Your task to perform on an android device: Open sound settings Image 0: 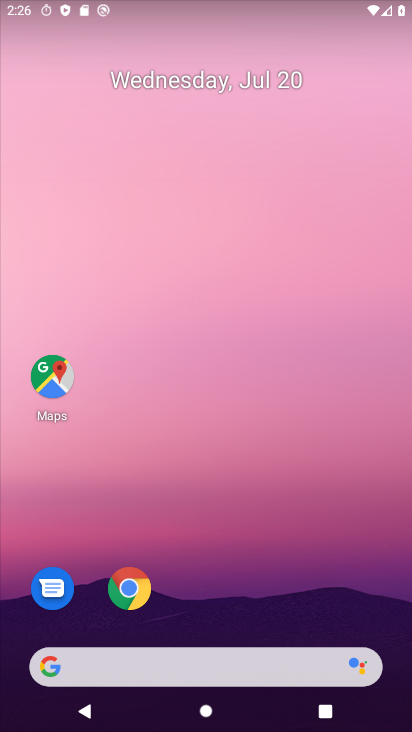
Step 0: drag from (171, 588) to (165, 3)
Your task to perform on an android device: Open sound settings Image 1: 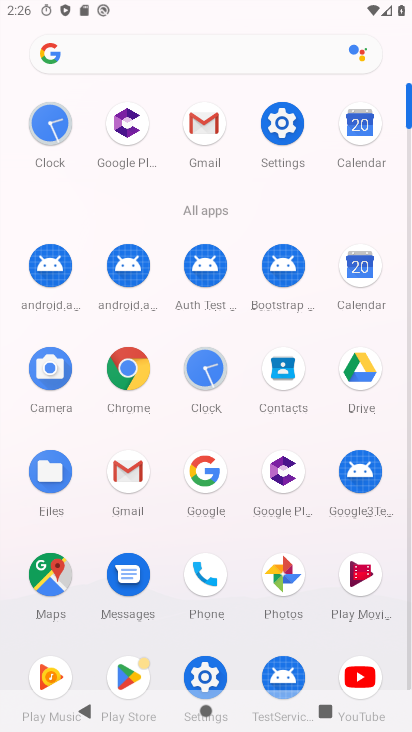
Step 1: click (206, 363)
Your task to perform on an android device: Open sound settings Image 2: 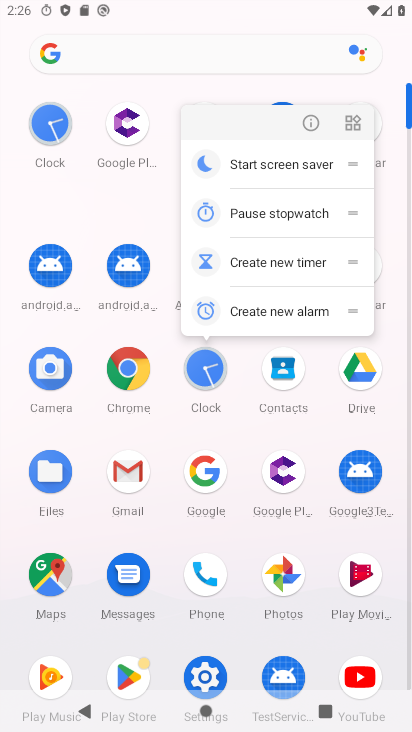
Step 2: click (300, 120)
Your task to perform on an android device: Open sound settings Image 3: 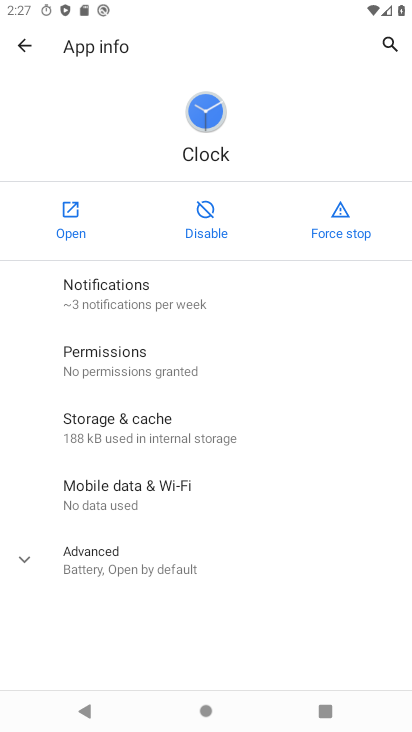
Step 3: click (64, 216)
Your task to perform on an android device: Open sound settings Image 4: 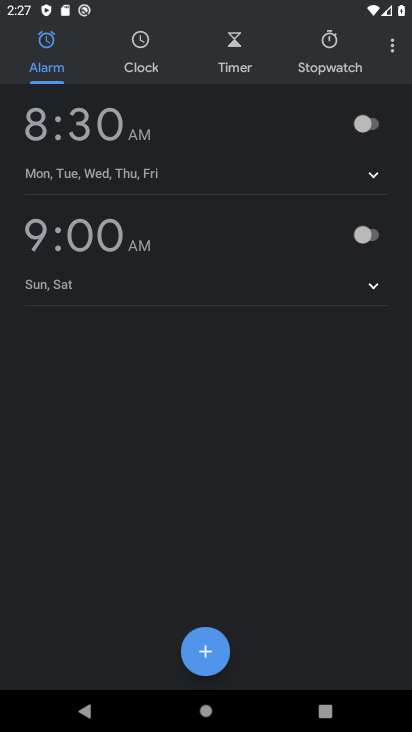
Step 4: press home button
Your task to perform on an android device: Open sound settings Image 5: 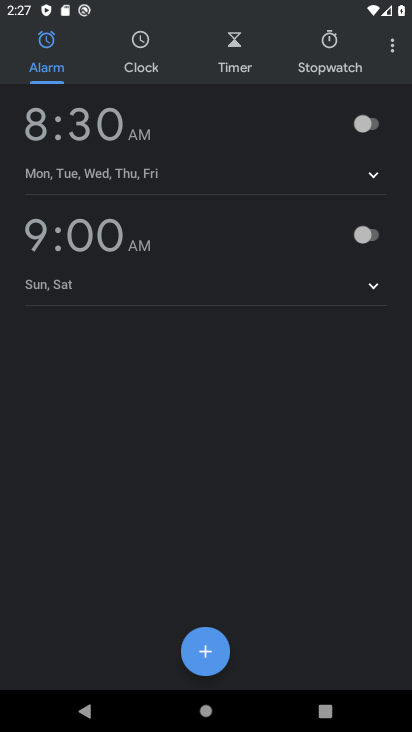
Step 5: drag from (269, 471) to (359, 17)
Your task to perform on an android device: Open sound settings Image 6: 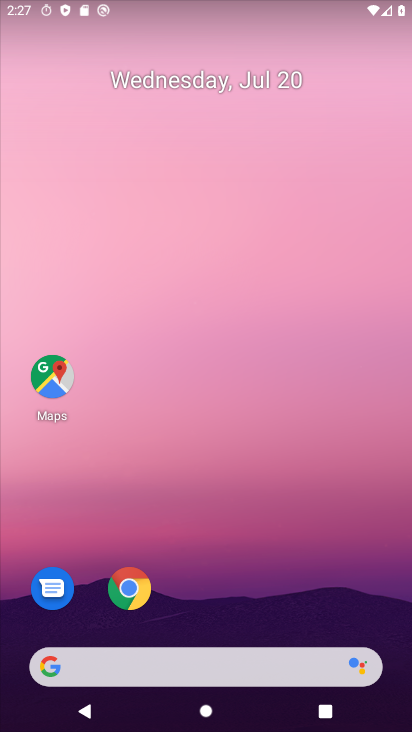
Step 6: drag from (186, 613) to (305, 94)
Your task to perform on an android device: Open sound settings Image 7: 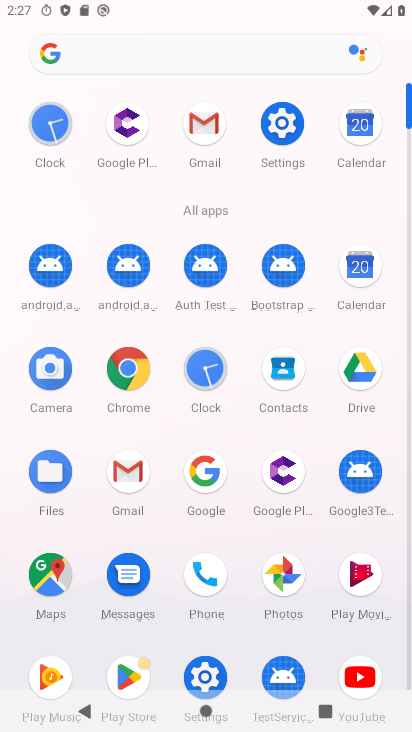
Step 7: click (286, 119)
Your task to perform on an android device: Open sound settings Image 8: 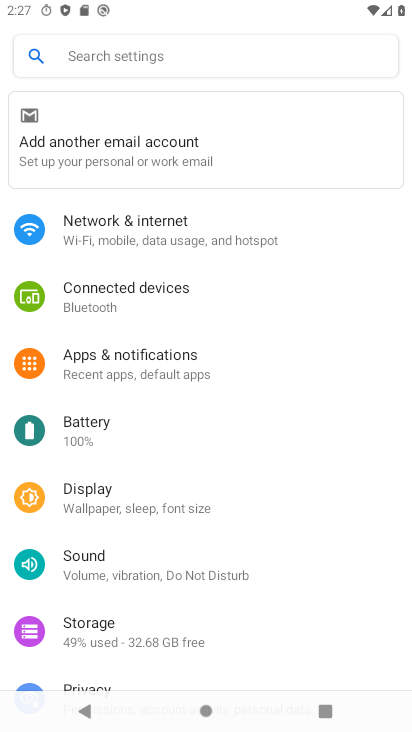
Step 8: click (100, 558)
Your task to perform on an android device: Open sound settings Image 9: 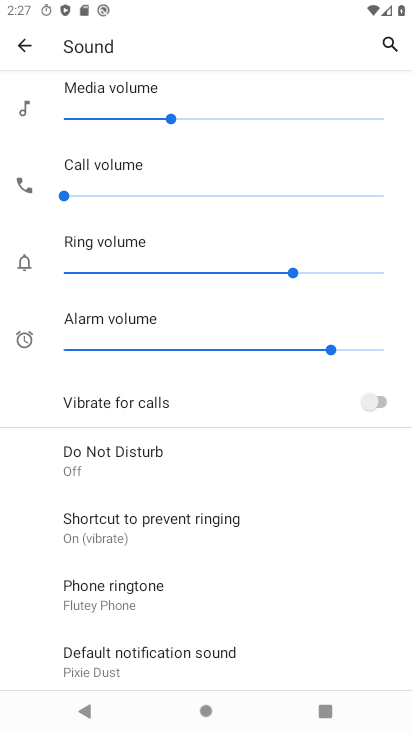
Step 9: task complete